Your task to perform on an android device: check data usage Image 0: 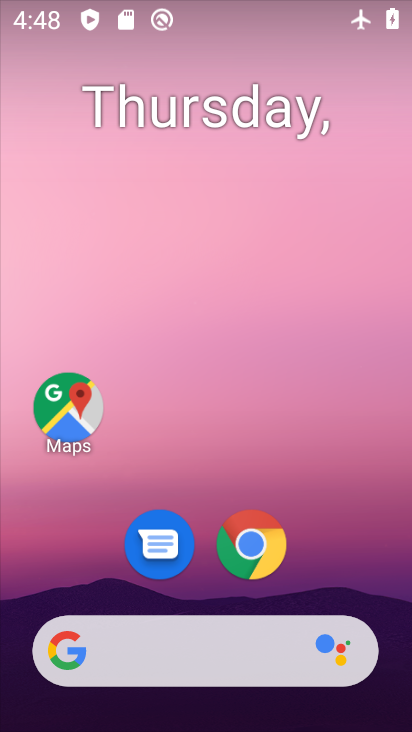
Step 0: drag from (312, 553) to (385, 116)
Your task to perform on an android device: check data usage Image 1: 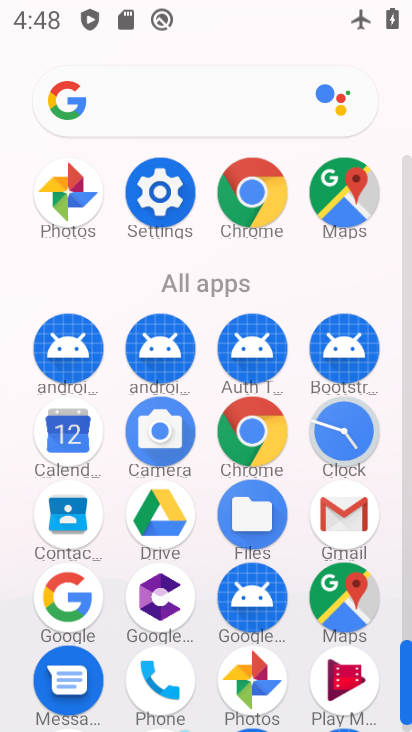
Step 1: click (171, 195)
Your task to perform on an android device: check data usage Image 2: 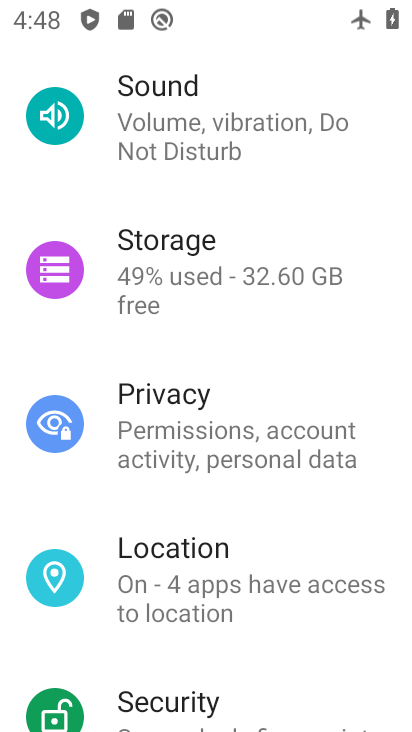
Step 2: drag from (212, 186) to (175, 412)
Your task to perform on an android device: check data usage Image 3: 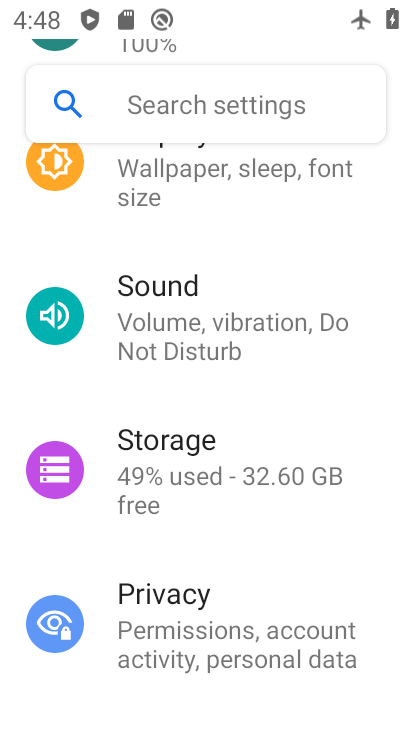
Step 3: drag from (168, 219) to (154, 443)
Your task to perform on an android device: check data usage Image 4: 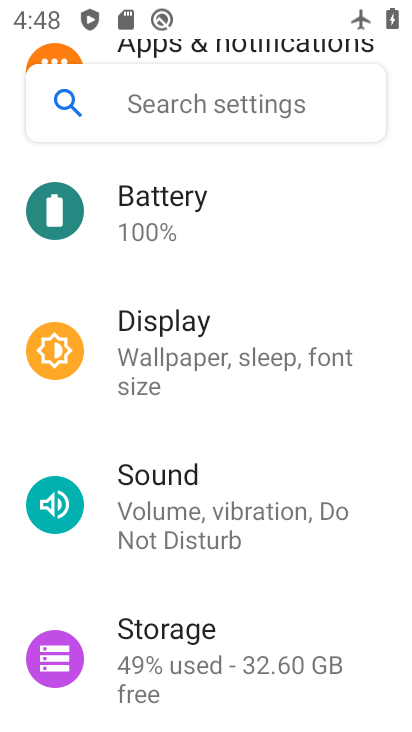
Step 4: drag from (150, 264) to (142, 473)
Your task to perform on an android device: check data usage Image 5: 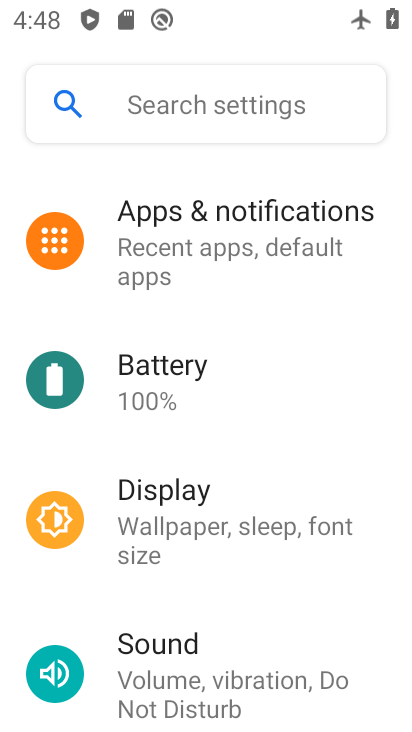
Step 5: drag from (167, 311) to (189, 480)
Your task to perform on an android device: check data usage Image 6: 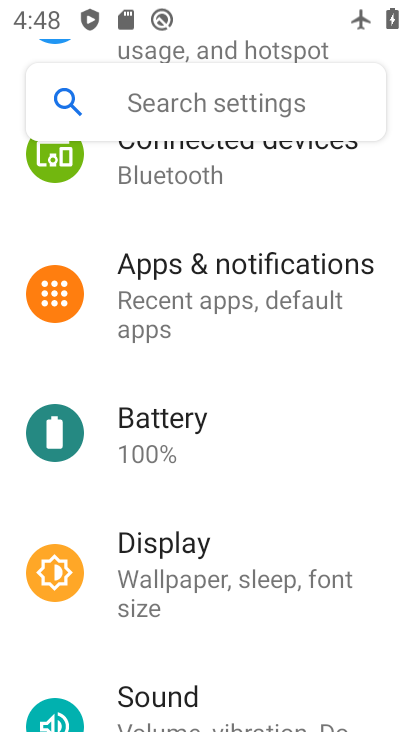
Step 6: drag from (168, 218) to (191, 508)
Your task to perform on an android device: check data usage Image 7: 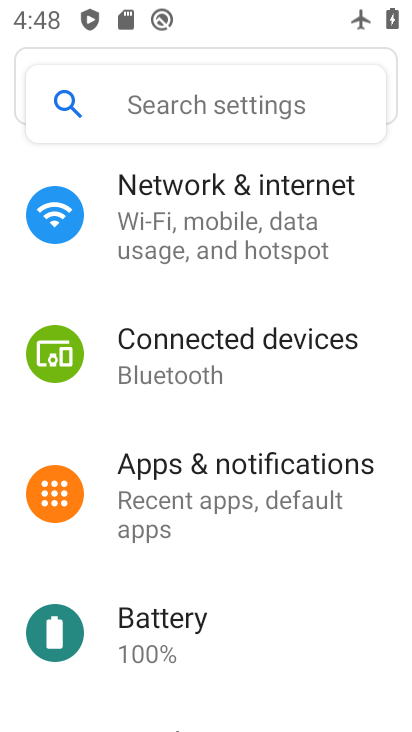
Step 7: click (209, 224)
Your task to perform on an android device: check data usage Image 8: 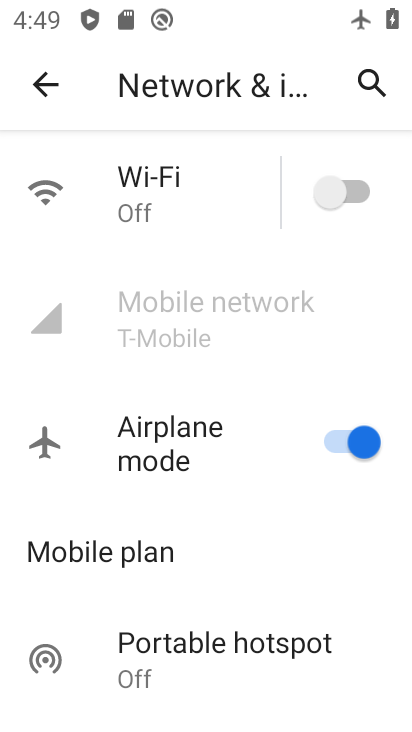
Step 8: task complete